Your task to perform on an android device: Search for "razer deathadder" on amazon, select the first entry, and add it to the cart. Image 0: 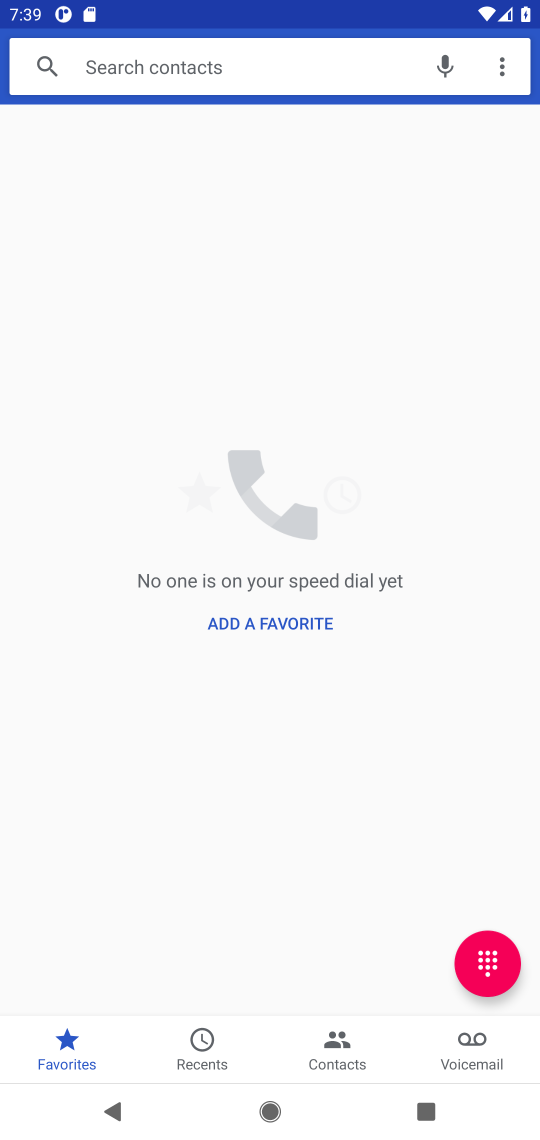
Step 0: press home button
Your task to perform on an android device: Search for "razer deathadder" on amazon, select the first entry, and add it to the cart. Image 1: 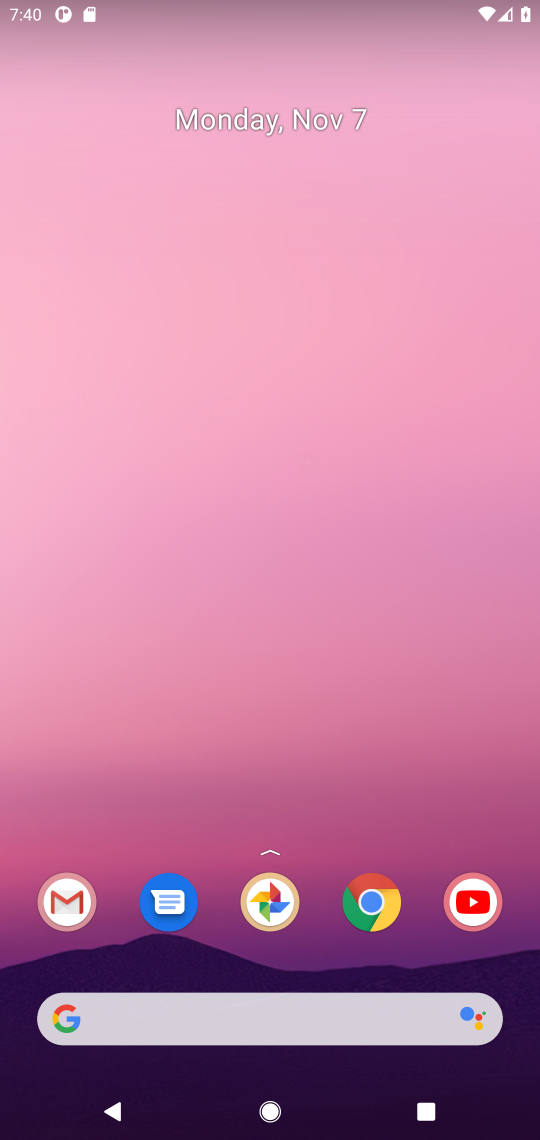
Step 1: click (375, 903)
Your task to perform on an android device: Search for "razer deathadder" on amazon, select the first entry, and add it to the cart. Image 2: 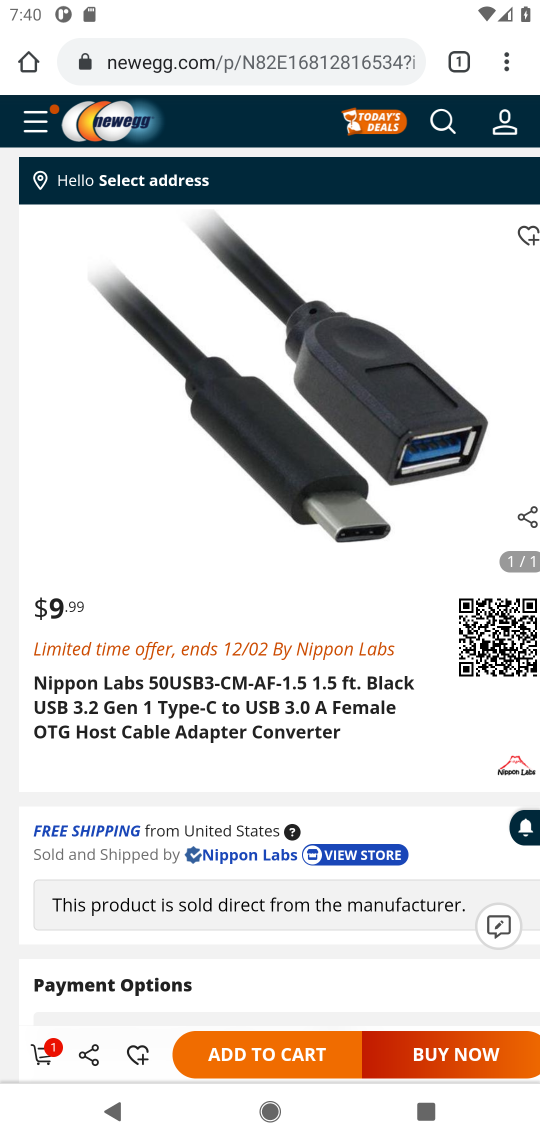
Step 2: click (210, 66)
Your task to perform on an android device: Search for "razer deathadder" on amazon, select the first entry, and add it to the cart. Image 3: 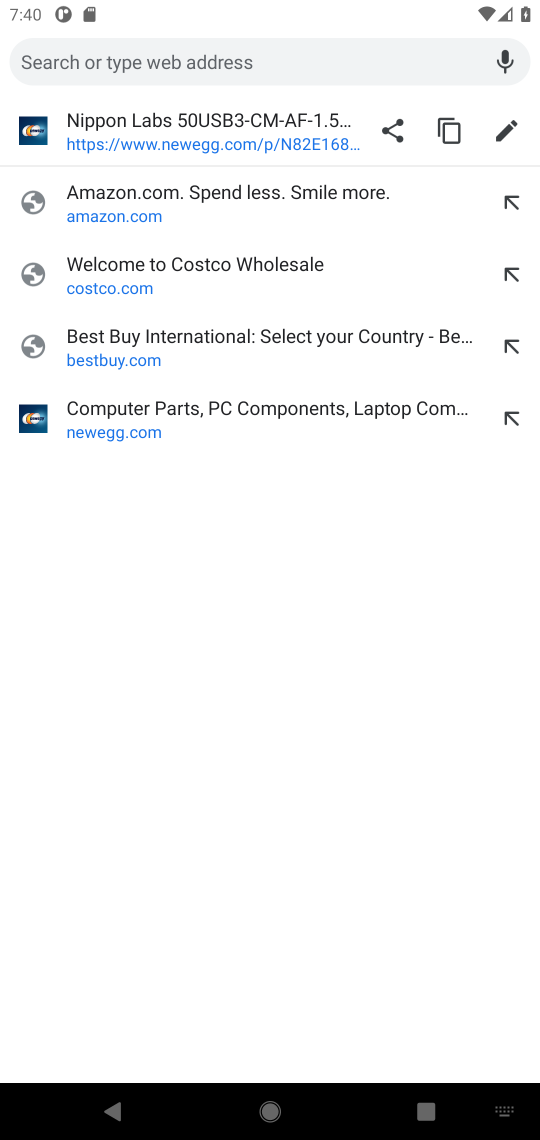
Step 3: click (149, 203)
Your task to perform on an android device: Search for "razer deathadder" on amazon, select the first entry, and add it to the cart. Image 4: 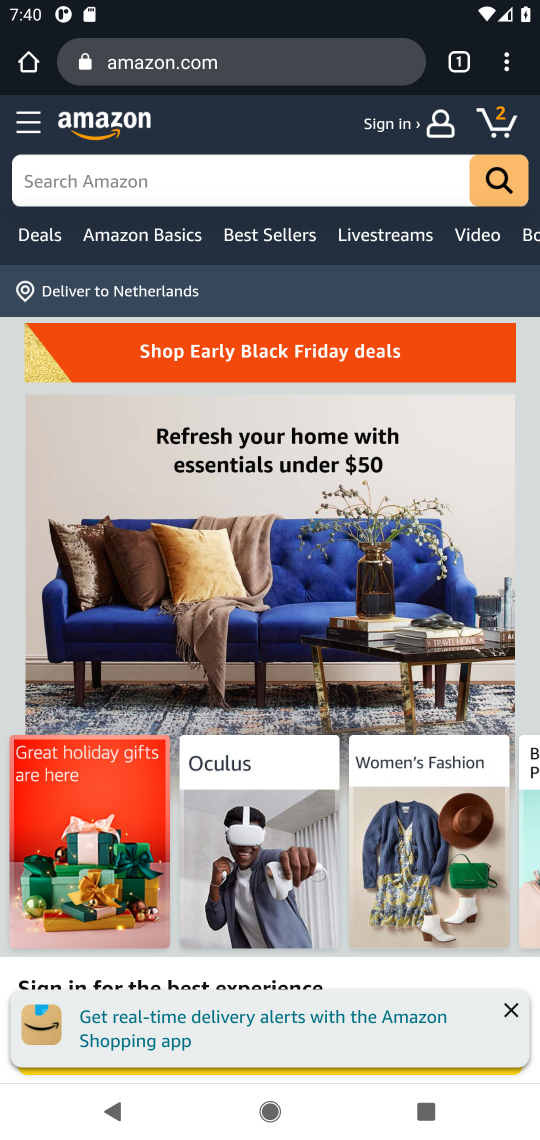
Step 4: click (161, 183)
Your task to perform on an android device: Search for "razer deathadder" on amazon, select the first entry, and add it to the cart. Image 5: 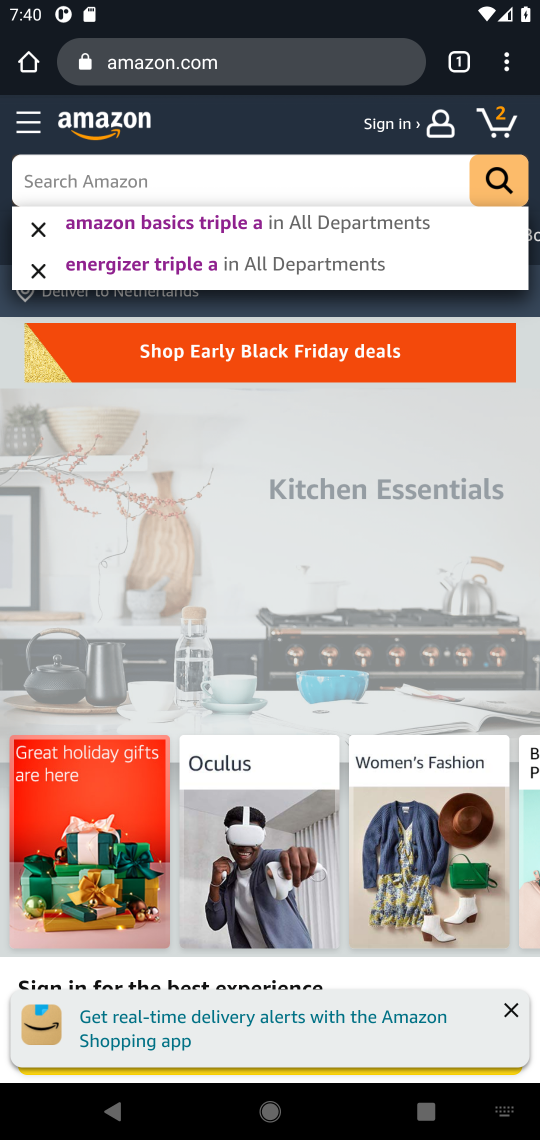
Step 5: type "razer deathadder"
Your task to perform on an android device: Search for "razer deathadder" on amazon, select the first entry, and add it to the cart. Image 6: 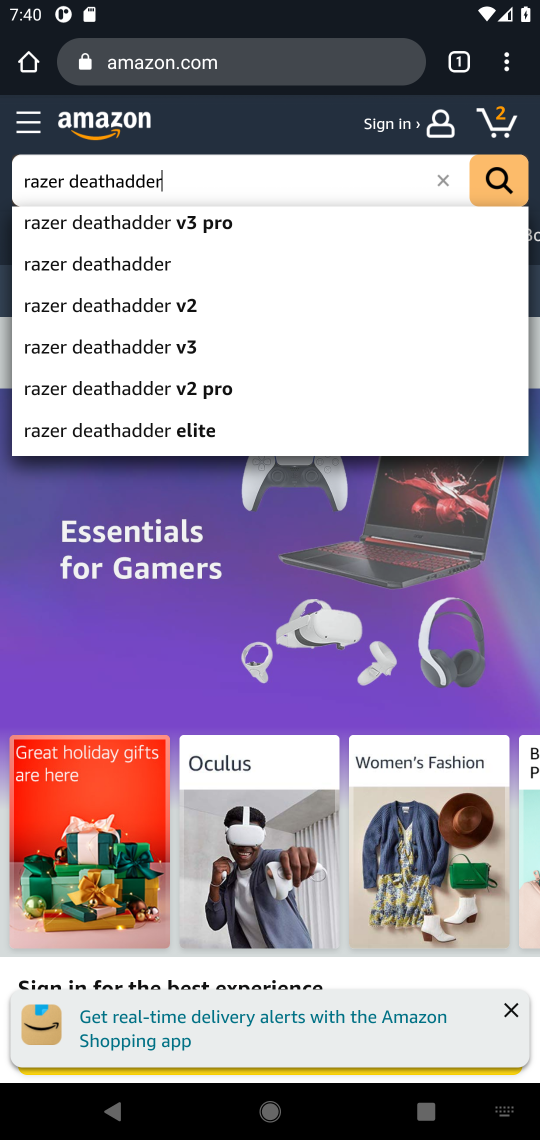
Step 6: click (126, 272)
Your task to perform on an android device: Search for "razer deathadder" on amazon, select the first entry, and add it to the cart. Image 7: 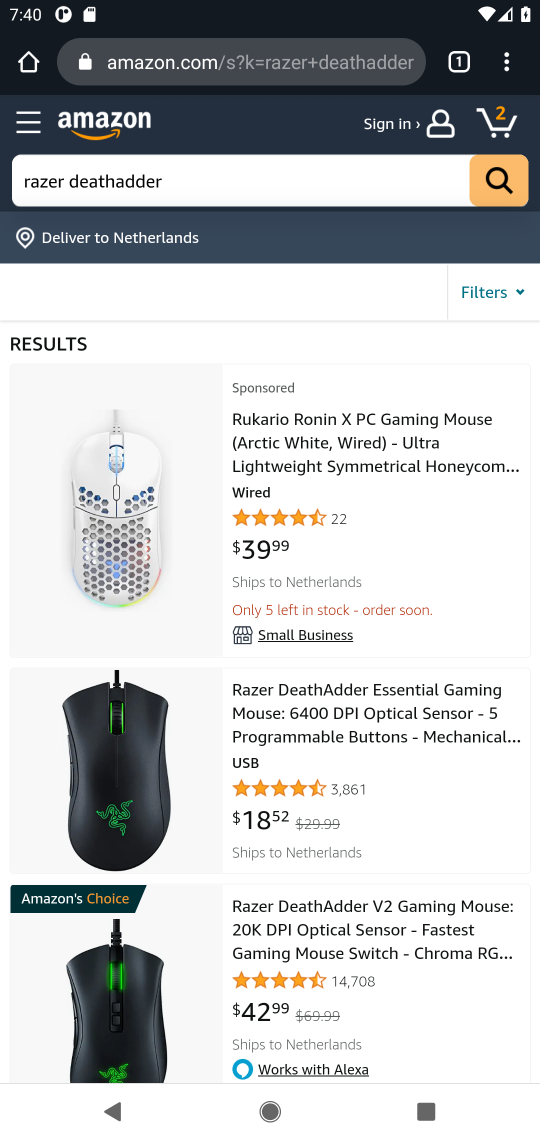
Step 7: task complete